Your task to perform on an android device: remove spam from my inbox in the gmail app Image 0: 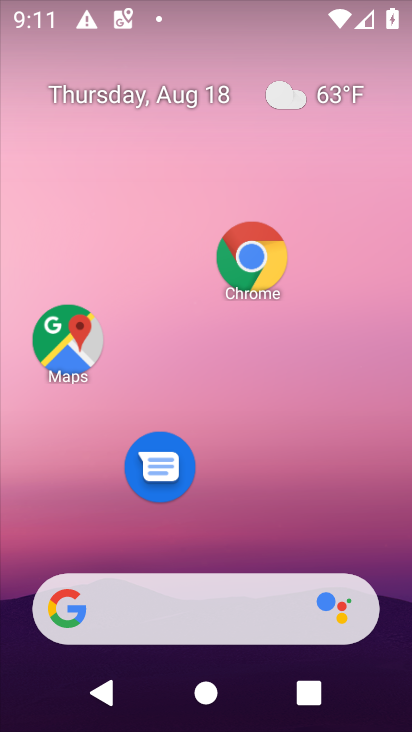
Step 0: drag from (272, 469) to (232, 65)
Your task to perform on an android device: remove spam from my inbox in the gmail app Image 1: 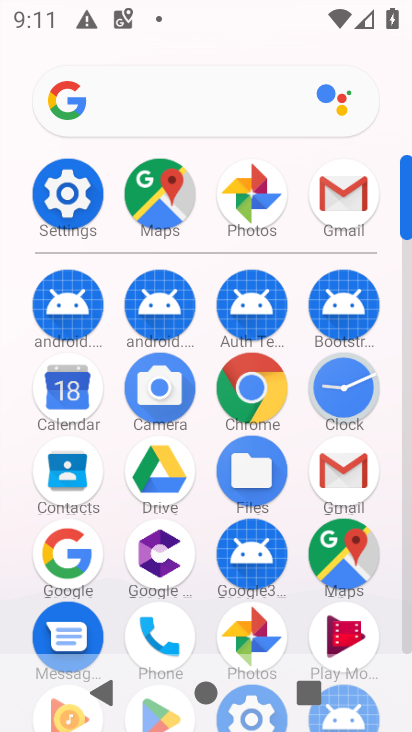
Step 1: click (254, 376)
Your task to perform on an android device: remove spam from my inbox in the gmail app Image 2: 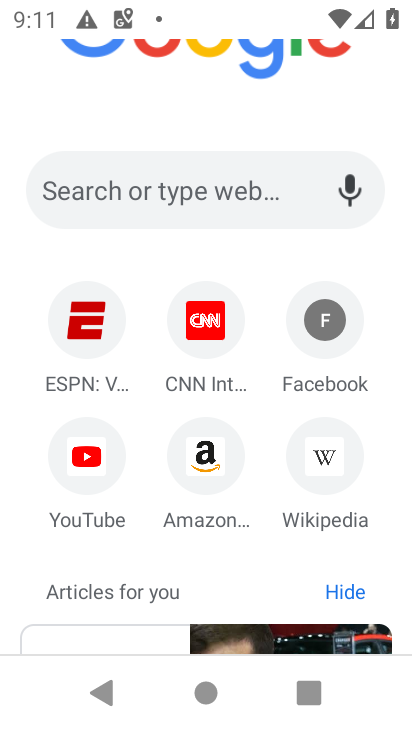
Step 2: task complete